Your task to perform on an android device: Open Chrome and go to settings Image 0: 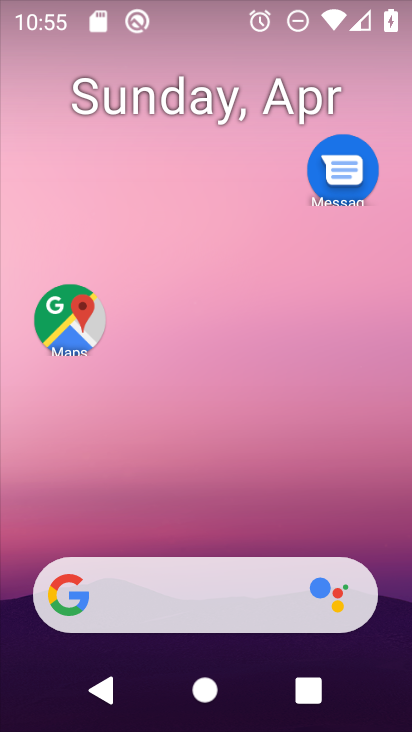
Step 0: drag from (200, 503) to (190, 48)
Your task to perform on an android device: Open Chrome and go to settings Image 1: 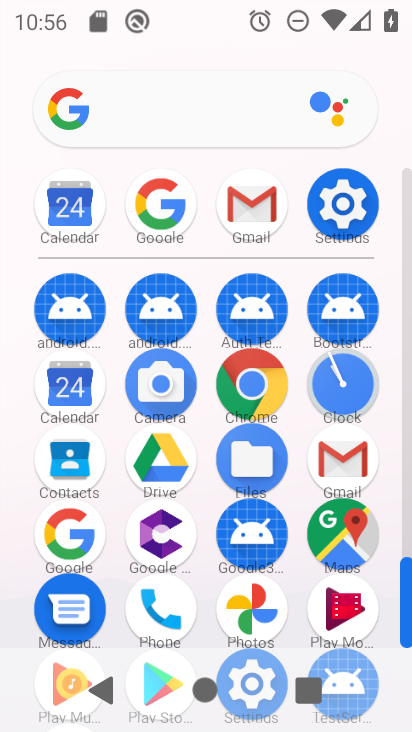
Step 1: click (252, 377)
Your task to perform on an android device: Open Chrome and go to settings Image 2: 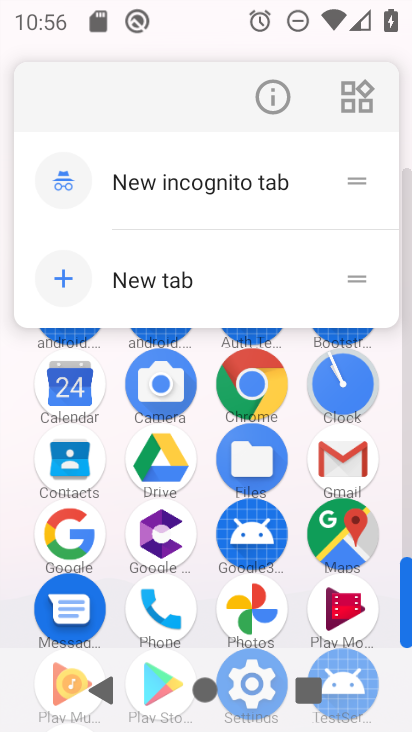
Step 2: click (265, 94)
Your task to perform on an android device: Open Chrome and go to settings Image 3: 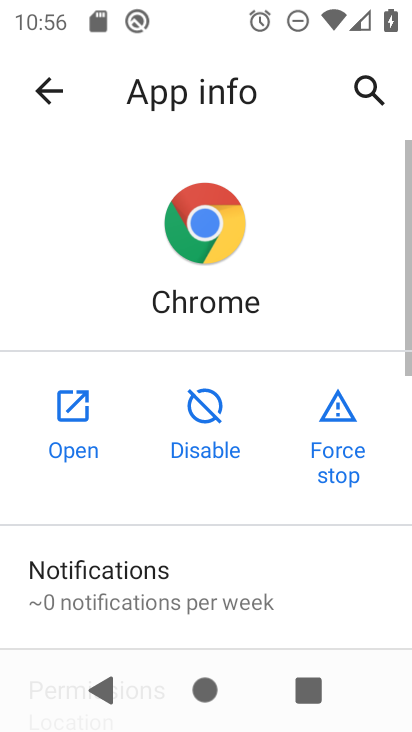
Step 3: click (66, 413)
Your task to perform on an android device: Open Chrome and go to settings Image 4: 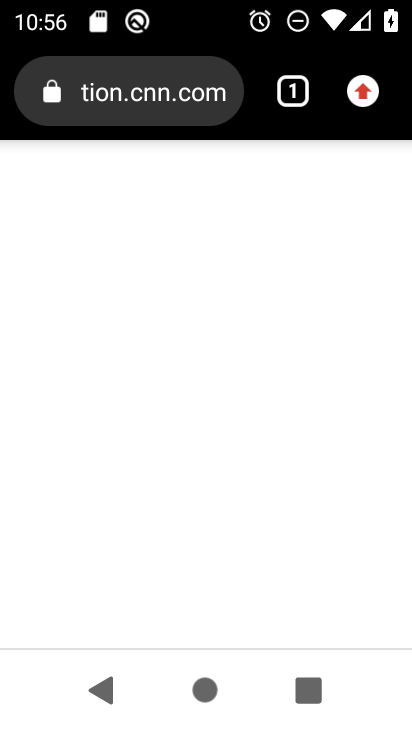
Step 4: task complete